Your task to perform on an android device: set the stopwatch Image 0: 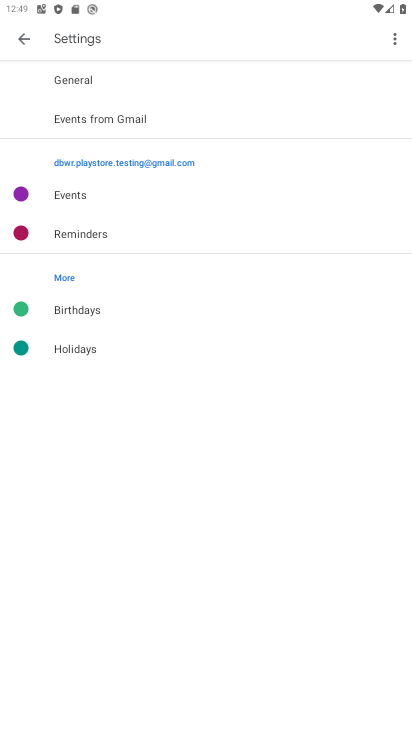
Step 0: press home button
Your task to perform on an android device: set the stopwatch Image 1: 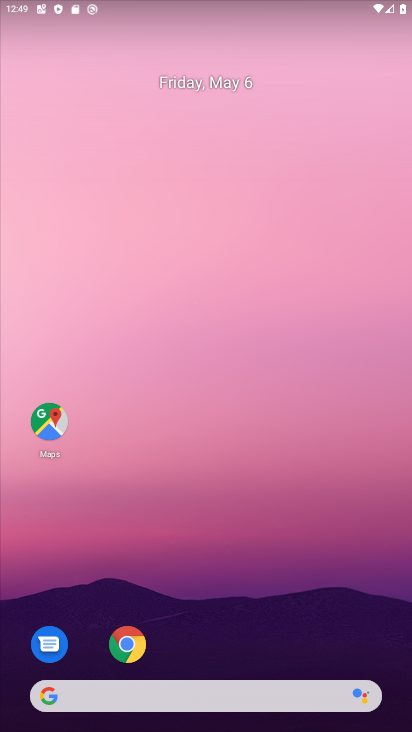
Step 1: drag from (234, 725) to (191, 53)
Your task to perform on an android device: set the stopwatch Image 2: 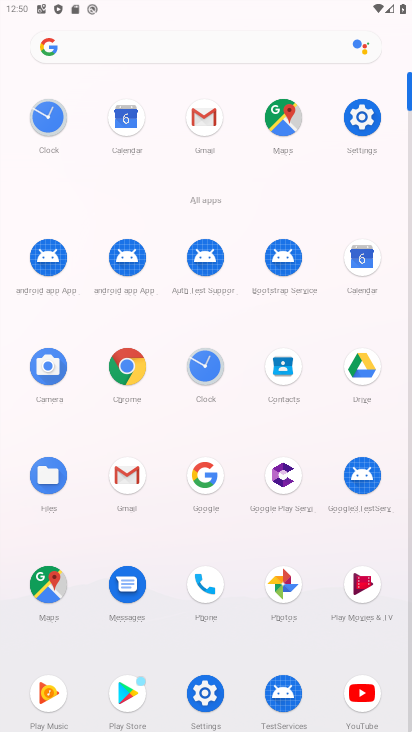
Step 2: click (40, 119)
Your task to perform on an android device: set the stopwatch Image 3: 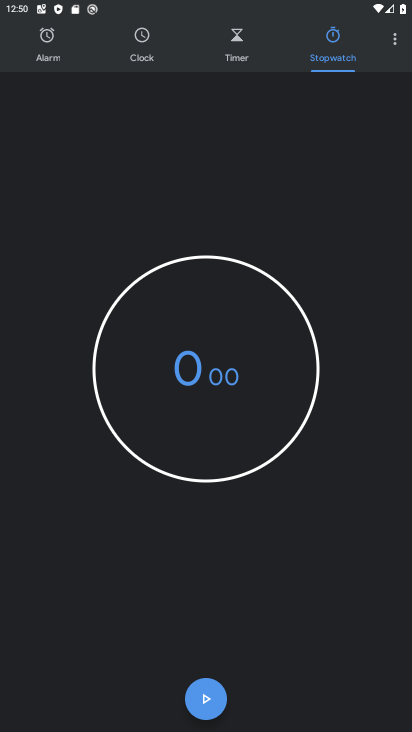
Step 3: task complete